Your task to perform on an android device: change timer sound Image 0: 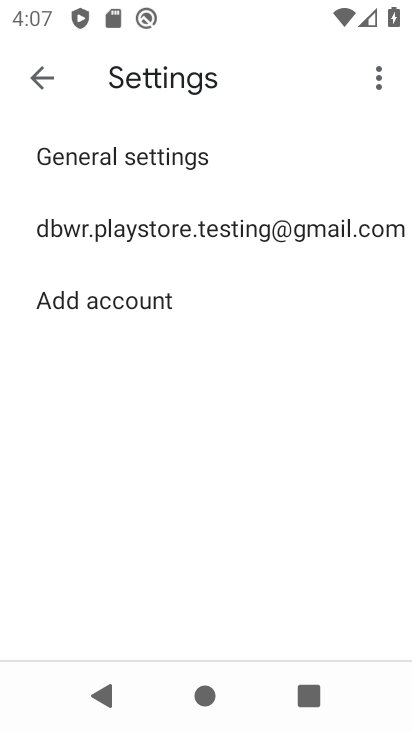
Step 0: press home button
Your task to perform on an android device: change timer sound Image 1: 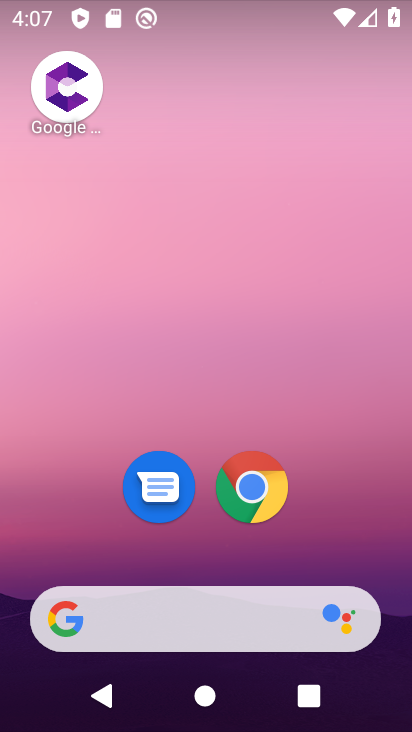
Step 1: drag from (354, 499) to (352, 78)
Your task to perform on an android device: change timer sound Image 2: 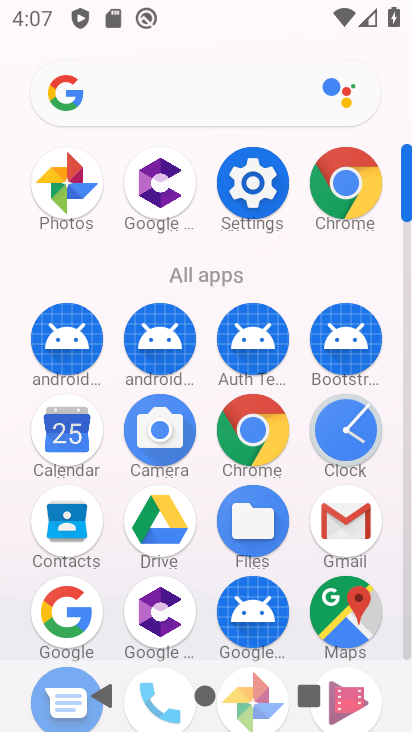
Step 2: click (354, 429)
Your task to perform on an android device: change timer sound Image 3: 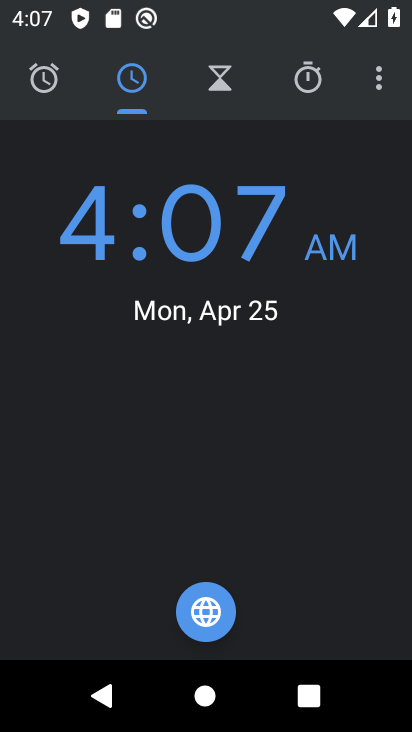
Step 3: click (378, 83)
Your task to perform on an android device: change timer sound Image 4: 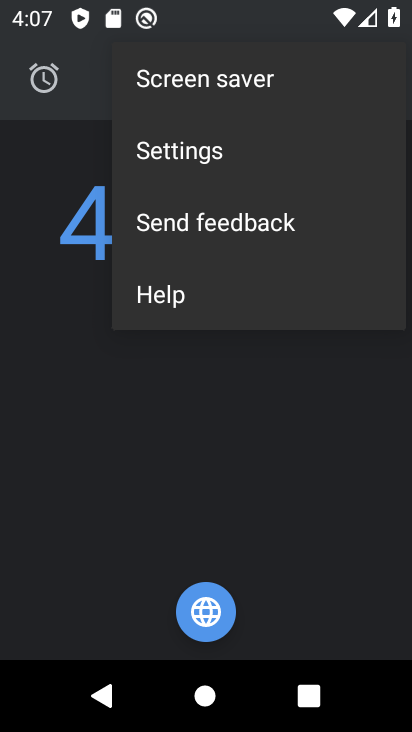
Step 4: click (245, 156)
Your task to perform on an android device: change timer sound Image 5: 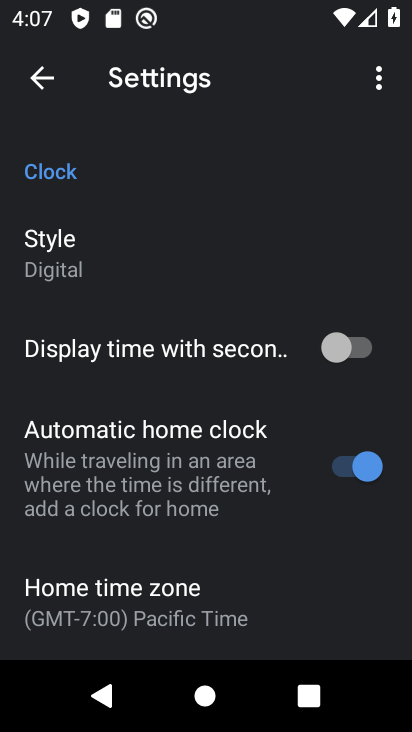
Step 5: drag from (290, 554) to (291, 417)
Your task to perform on an android device: change timer sound Image 6: 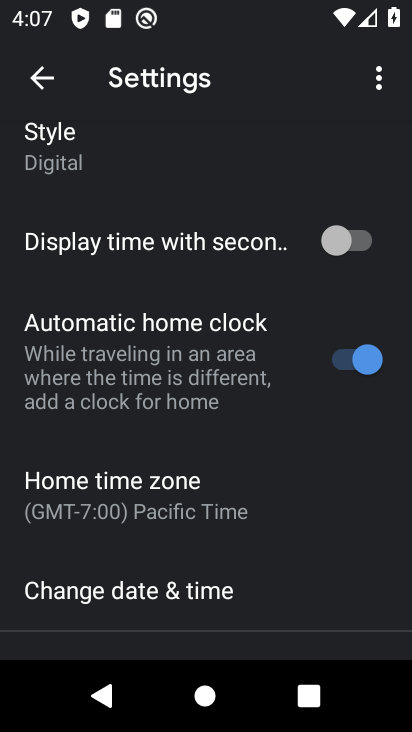
Step 6: drag from (295, 549) to (297, 421)
Your task to perform on an android device: change timer sound Image 7: 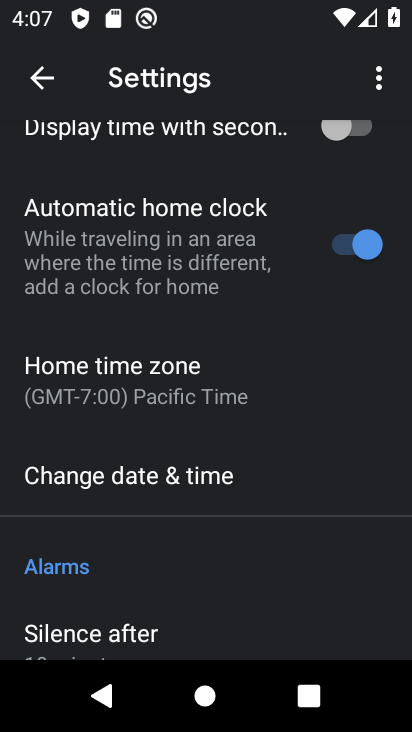
Step 7: drag from (292, 545) to (294, 377)
Your task to perform on an android device: change timer sound Image 8: 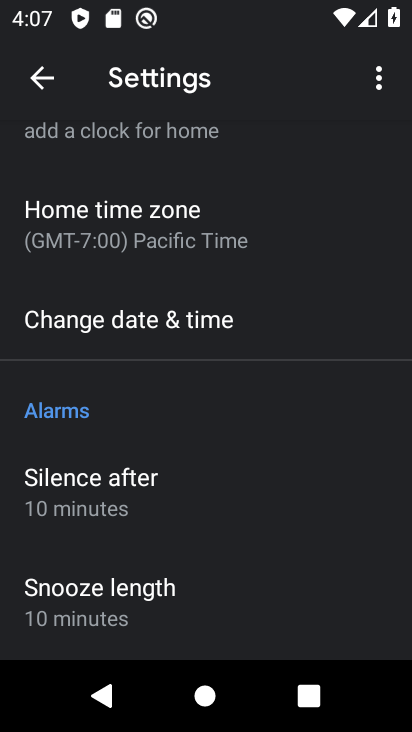
Step 8: drag from (285, 554) to (281, 371)
Your task to perform on an android device: change timer sound Image 9: 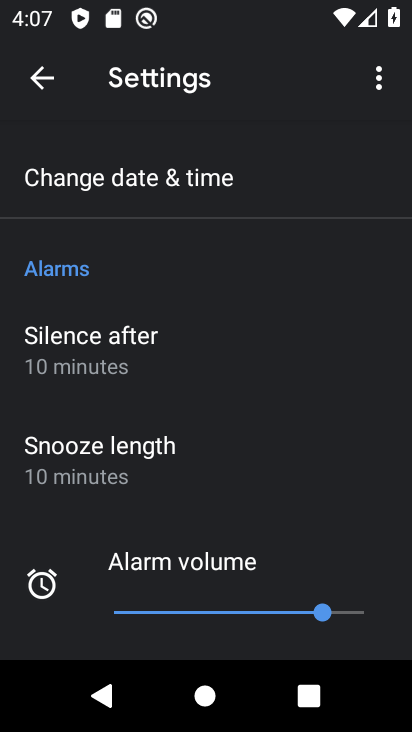
Step 9: drag from (296, 548) to (294, 355)
Your task to perform on an android device: change timer sound Image 10: 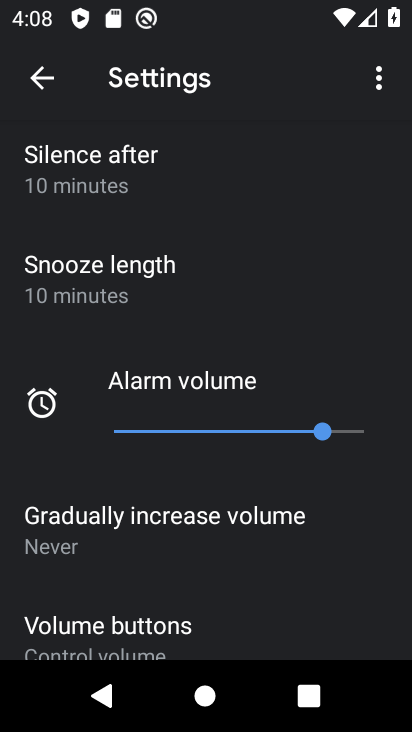
Step 10: drag from (303, 588) to (300, 411)
Your task to perform on an android device: change timer sound Image 11: 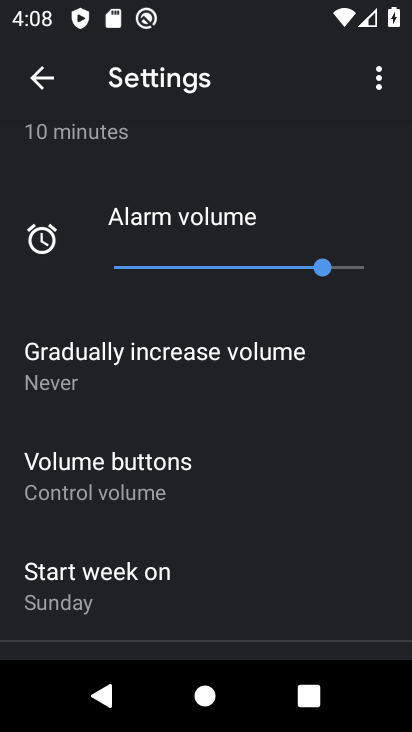
Step 11: drag from (305, 588) to (303, 416)
Your task to perform on an android device: change timer sound Image 12: 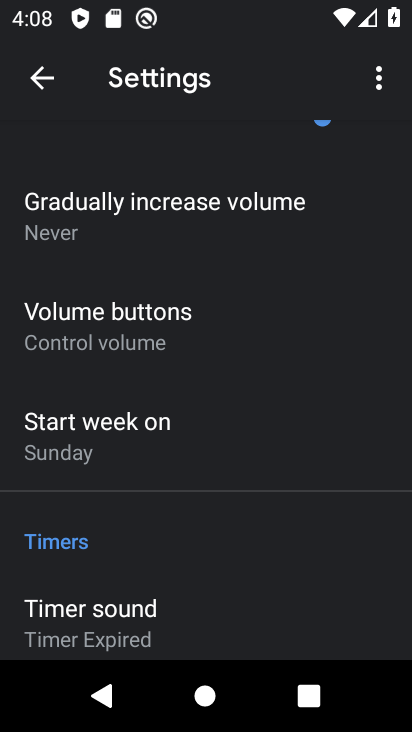
Step 12: drag from (281, 588) to (276, 427)
Your task to perform on an android device: change timer sound Image 13: 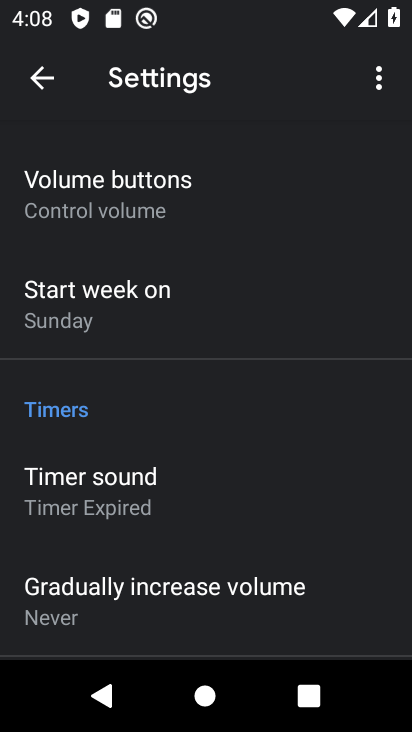
Step 13: drag from (307, 492) to (309, 343)
Your task to perform on an android device: change timer sound Image 14: 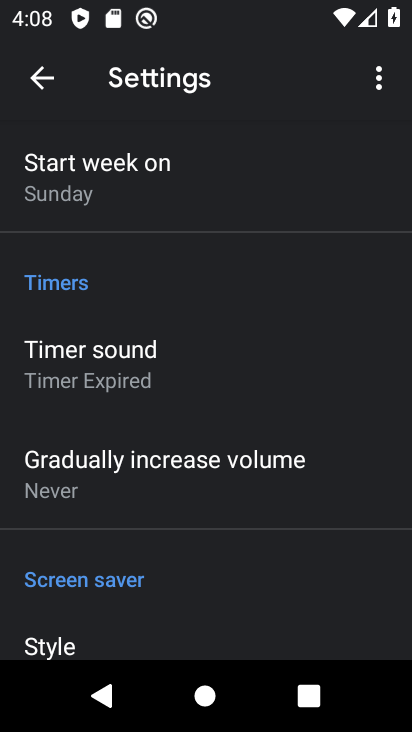
Step 14: drag from (277, 528) to (303, 239)
Your task to perform on an android device: change timer sound Image 15: 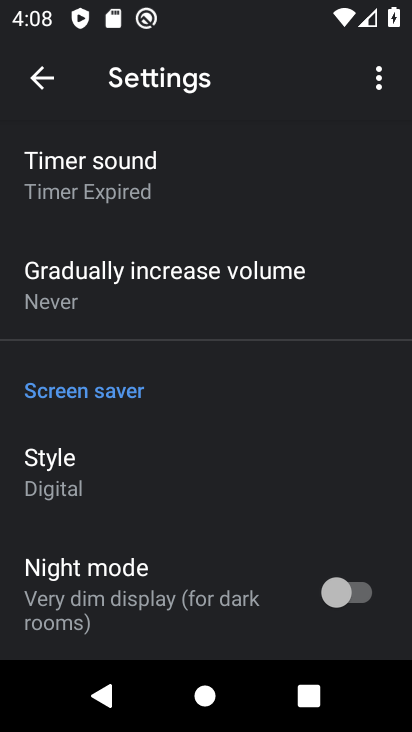
Step 15: click (143, 196)
Your task to perform on an android device: change timer sound Image 16: 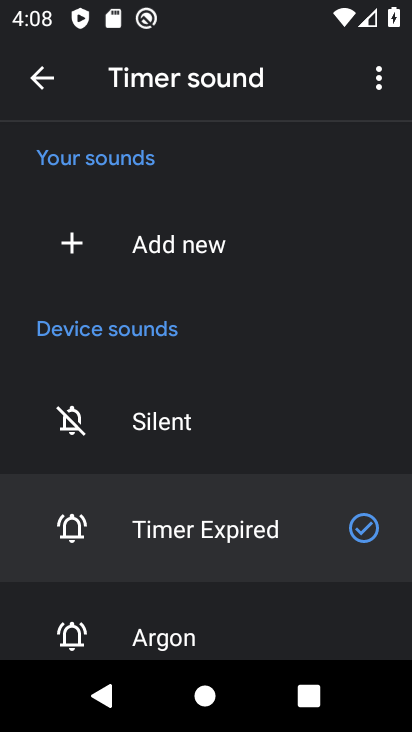
Step 16: click (185, 424)
Your task to perform on an android device: change timer sound Image 17: 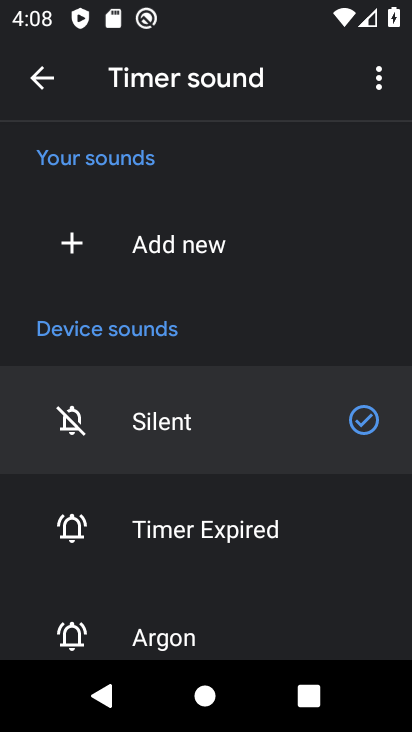
Step 17: task complete